Your task to perform on an android device: Search for Italian restaurants on Maps Image 0: 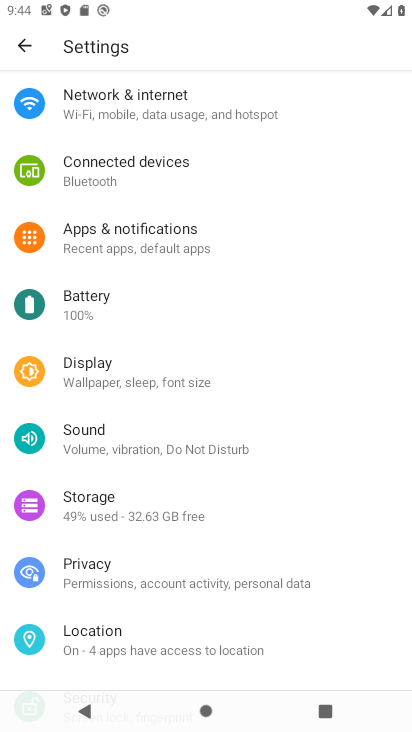
Step 0: press back button
Your task to perform on an android device: Search for Italian restaurants on Maps Image 1: 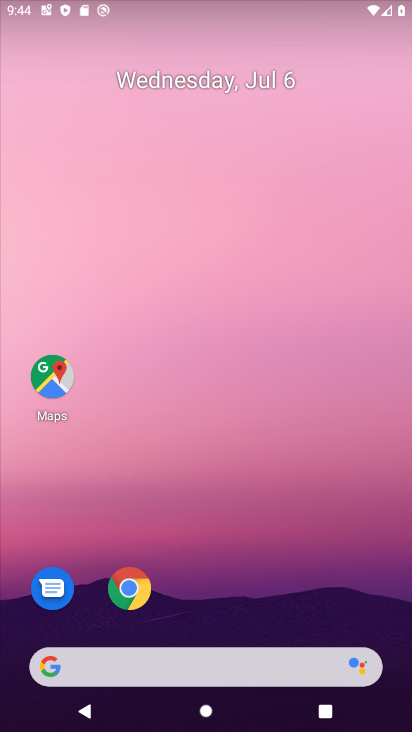
Step 1: drag from (245, 444) to (297, 8)
Your task to perform on an android device: Search for Italian restaurants on Maps Image 2: 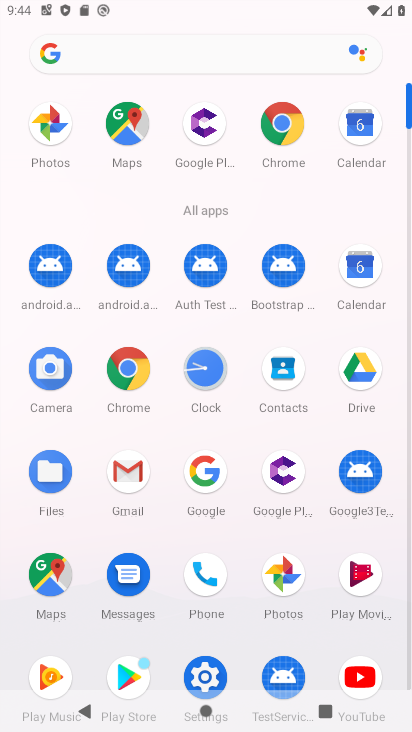
Step 2: click (129, 124)
Your task to perform on an android device: Search for Italian restaurants on Maps Image 3: 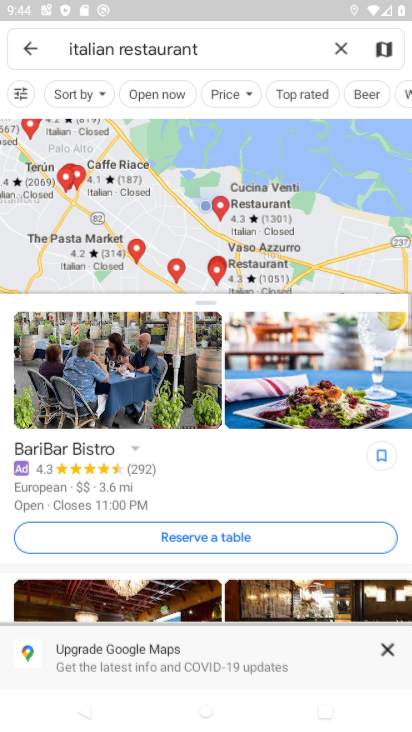
Step 3: click (334, 52)
Your task to perform on an android device: Search for Italian restaurants on Maps Image 4: 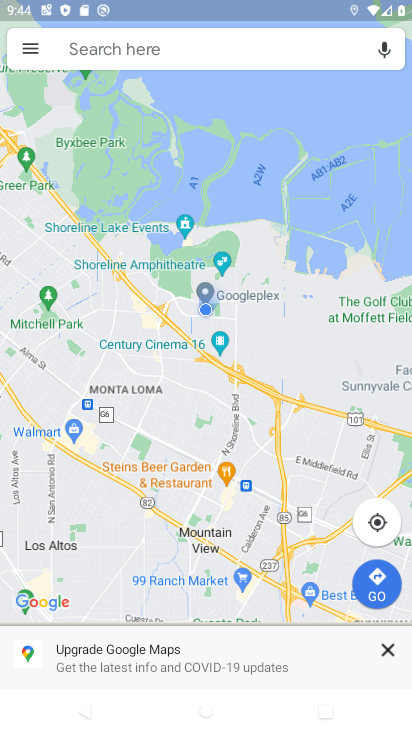
Step 4: click (164, 34)
Your task to perform on an android device: Search for Italian restaurants on Maps Image 5: 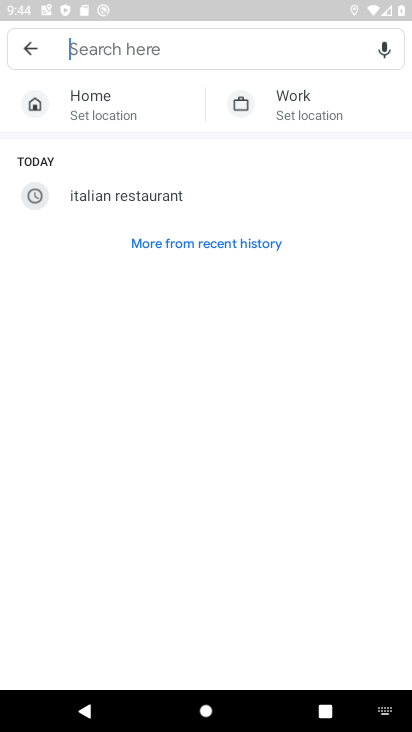
Step 5: type "italian"
Your task to perform on an android device: Search for Italian restaurants on Maps Image 6: 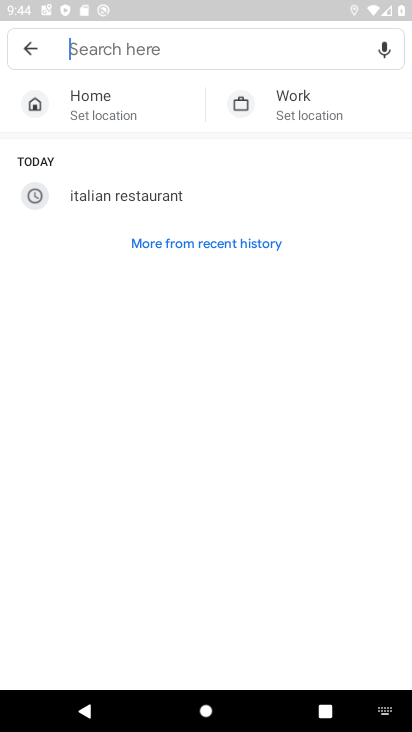
Step 6: click (129, 194)
Your task to perform on an android device: Search for Italian restaurants on Maps Image 7: 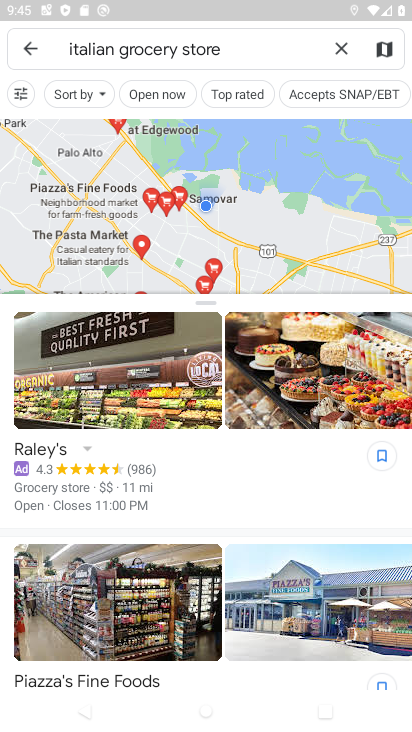
Step 7: click (336, 43)
Your task to perform on an android device: Search for Italian restaurants on Maps Image 8: 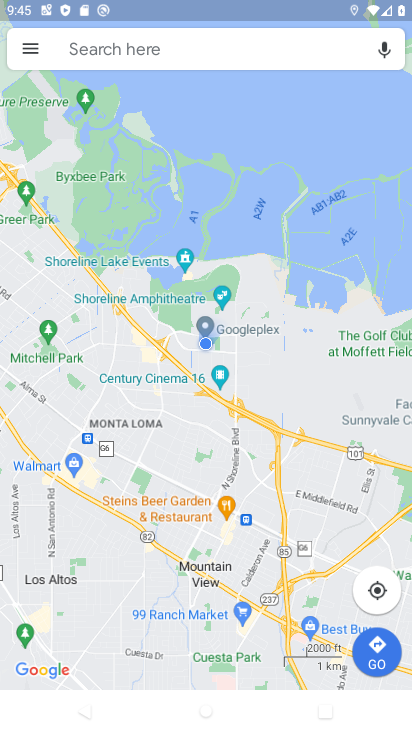
Step 8: click (104, 46)
Your task to perform on an android device: Search for Italian restaurants on Maps Image 9: 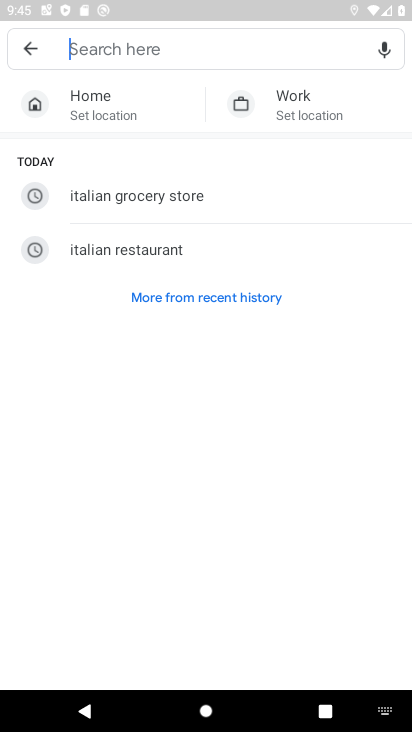
Step 9: click (158, 249)
Your task to perform on an android device: Search for Italian restaurants on Maps Image 10: 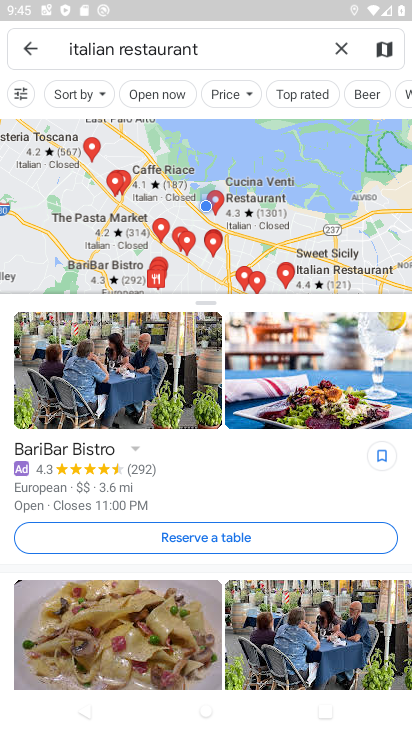
Step 10: task complete